Your task to perform on an android device: search for starred emails in the gmail app Image 0: 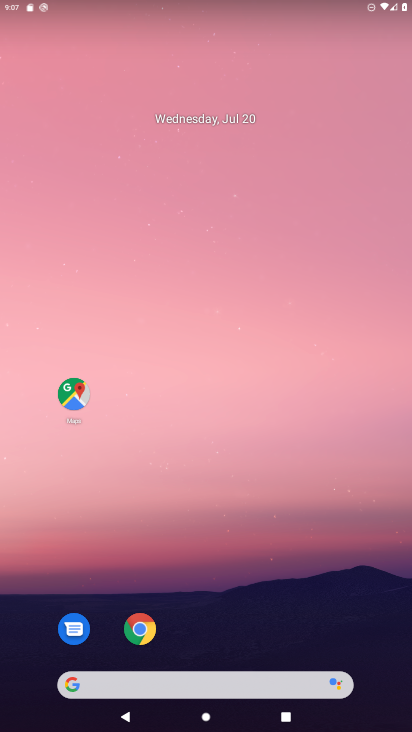
Step 0: drag from (388, 662) to (337, 150)
Your task to perform on an android device: search for starred emails in the gmail app Image 1: 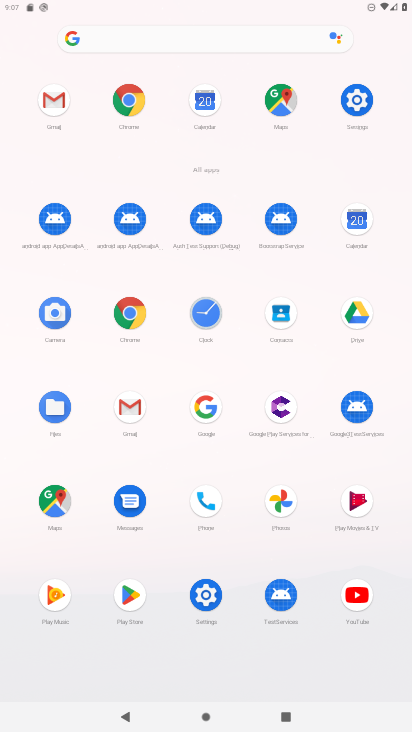
Step 1: click (130, 406)
Your task to perform on an android device: search for starred emails in the gmail app Image 2: 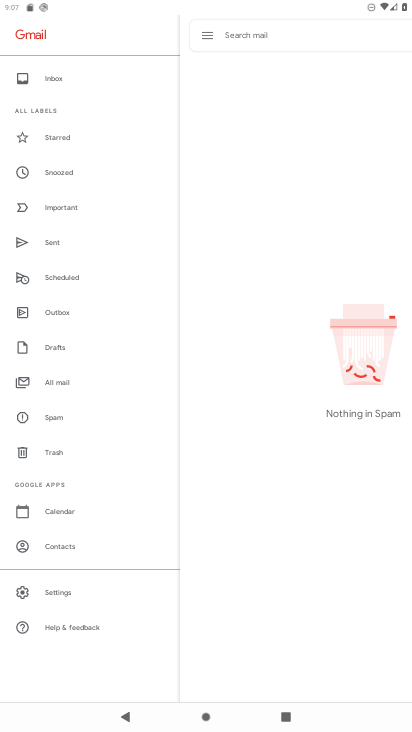
Step 2: click (43, 134)
Your task to perform on an android device: search for starred emails in the gmail app Image 3: 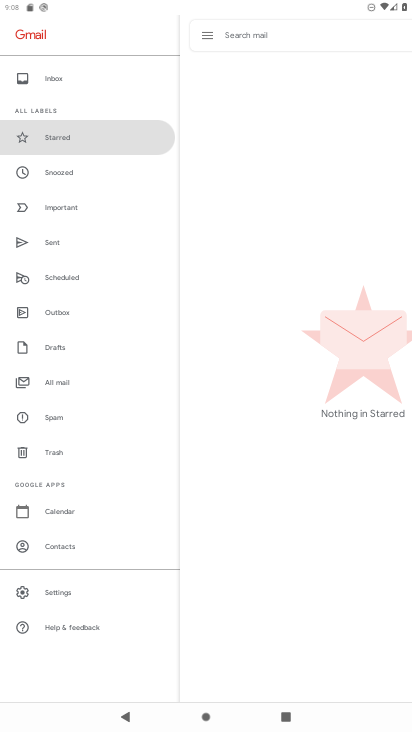
Step 3: task complete